Your task to perform on an android device: Show me popular videos on Youtube Image 0: 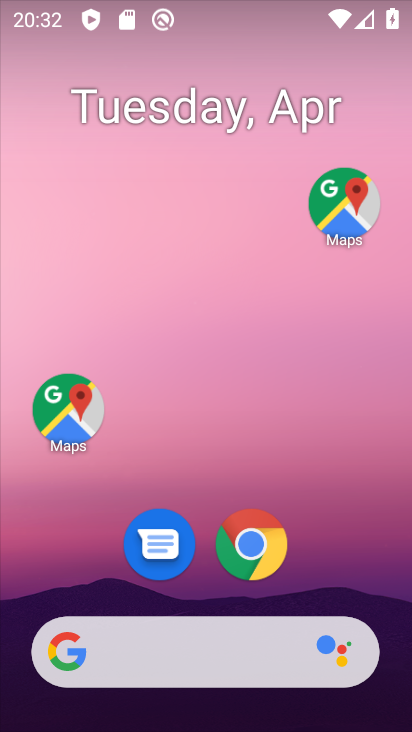
Step 0: click (301, 99)
Your task to perform on an android device: Show me popular videos on Youtube Image 1: 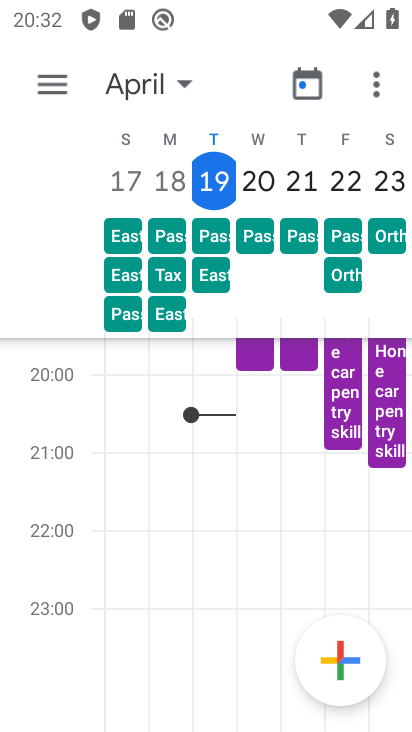
Step 1: press home button
Your task to perform on an android device: Show me popular videos on Youtube Image 2: 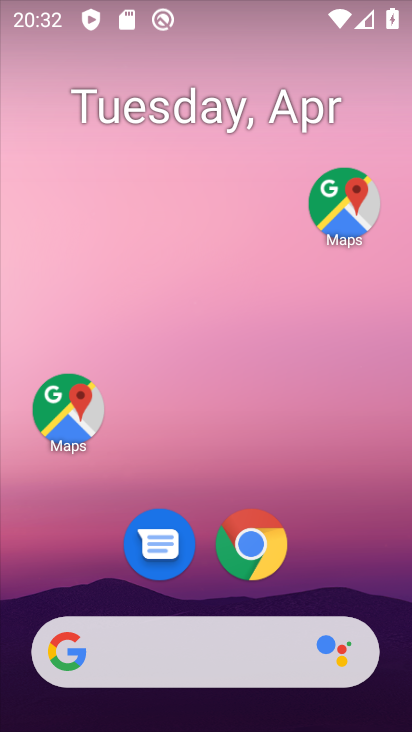
Step 2: drag from (228, 405) to (302, 168)
Your task to perform on an android device: Show me popular videos on Youtube Image 3: 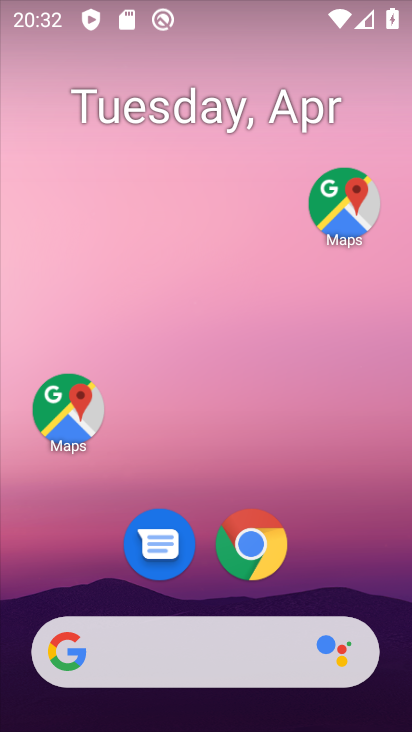
Step 3: drag from (213, 634) to (340, 248)
Your task to perform on an android device: Show me popular videos on Youtube Image 4: 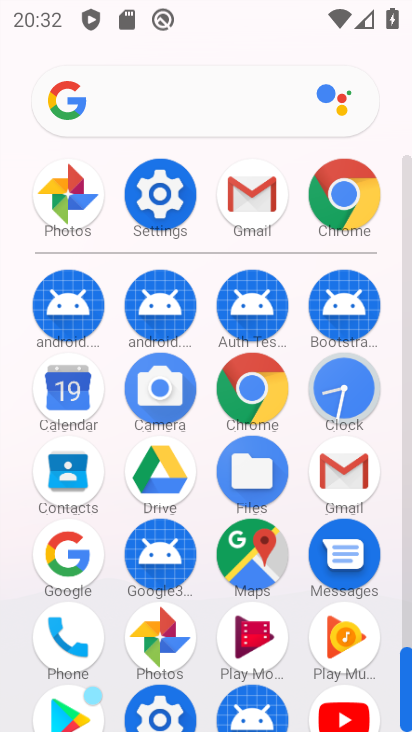
Step 4: drag from (301, 615) to (364, 305)
Your task to perform on an android device: Show me popular videos on Youtube Image 5: 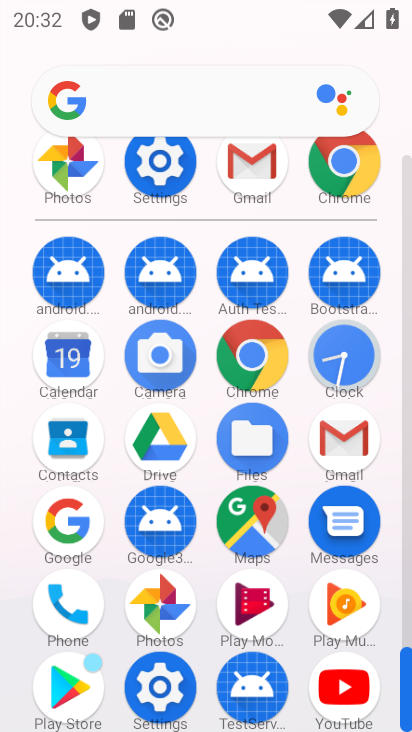
Step 5: click (338, 690)
Your task to perform on an android device: Show me popular videos on Youtube Image 6: 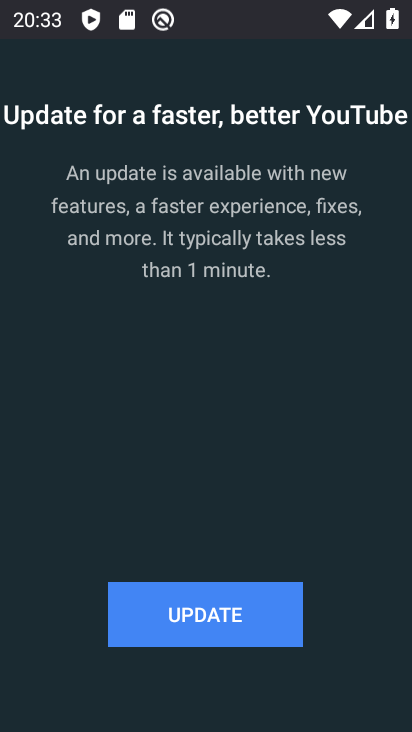
Step 6: click (226, 624)
Your task to perform on an android device: Show me popular videos on Youtube Image 7: 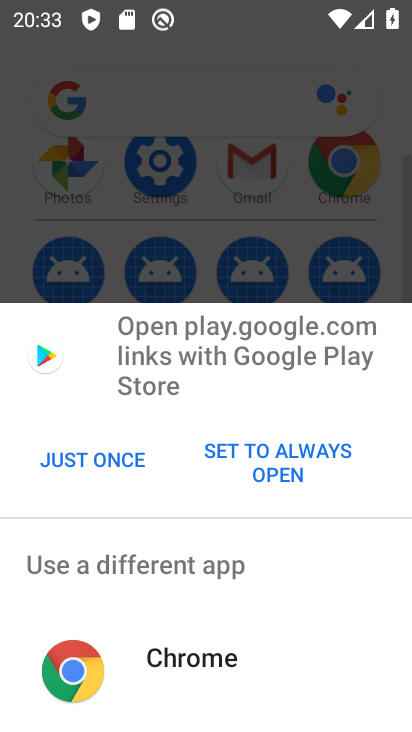
Step 7: click (115, 466)
Your task to perform on an android device: Show me popular videos on Youtube Image 8: 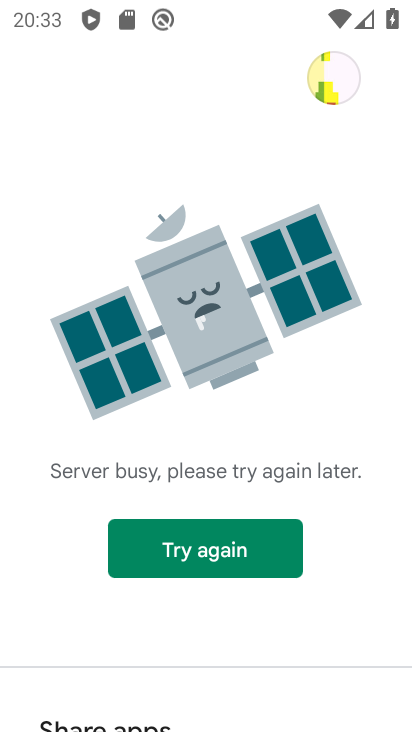
Step 8: task complete